Your task to perform on an android device: Open privacy settings Image 0: 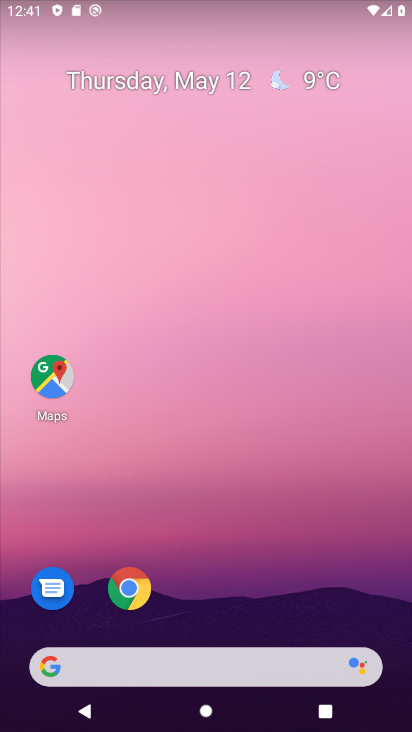
Step 0: drag from (301, 632) to (225, 0)
Your task to perform on an android device: Open privacy settings Image 1: 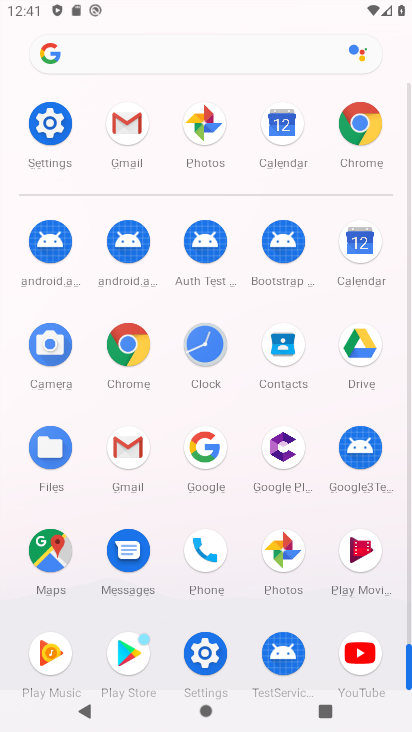
Step 1: click (51, 127)
Your task to perform on an android device: Open privacy settings Image 2: 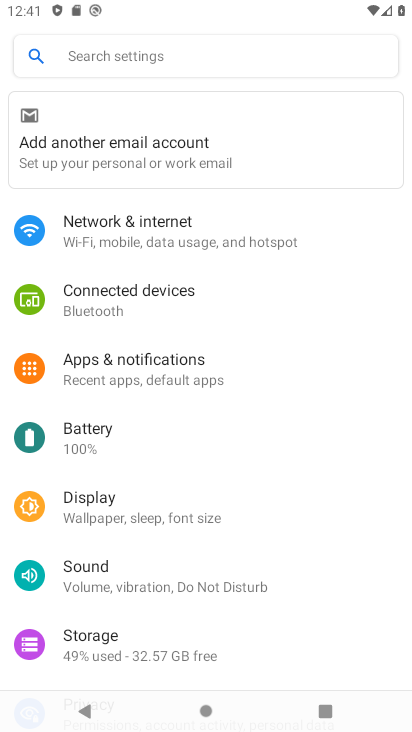
Step 2: drag from (139, 459) to (152, 21)
Your task to perform on an android device: Open privacy settings Image 3: 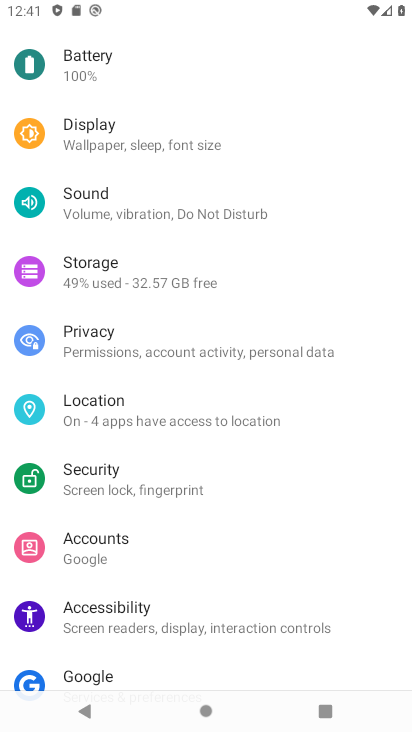
Step 3: drag from (141, 382) to (138, 80)
Your task to perform on an android device: Open privacy settings Image 4: 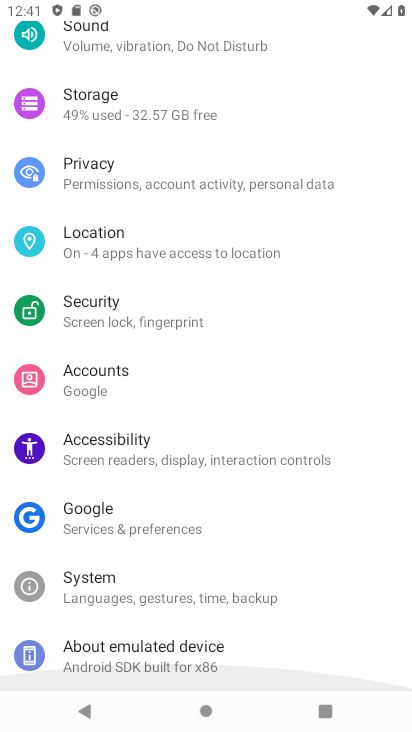
Step 4: drag from (183, 490) to (238, 89)
Your task to perform on an android device: Open privacy settings Image 5: 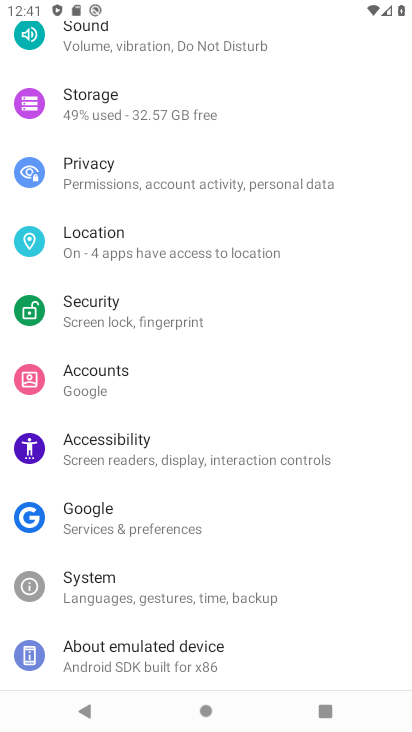
Step 5: click (69, 180)
Your task to perform on an android device: Open privacy settings Image 6: 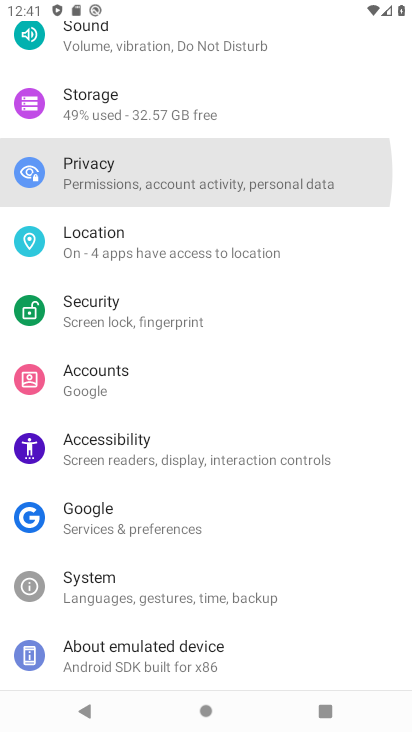
Step 6: click (79, 170)
Your task to perform on an android device: Open privacy settings Image 7: 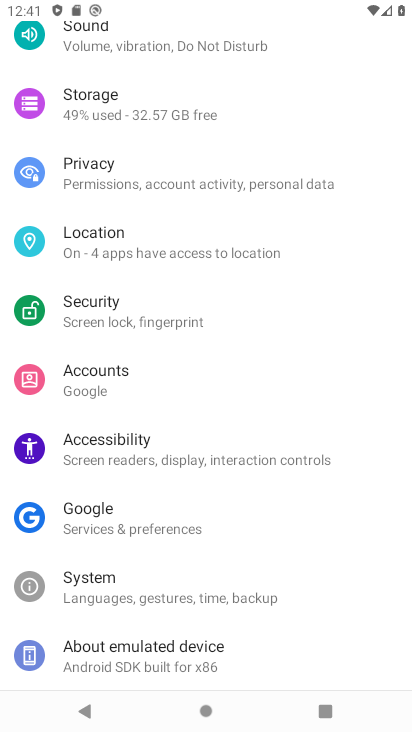
Step 7: click (82, 168)
Your task to perform on an android device: Open privacy settings Image 8: 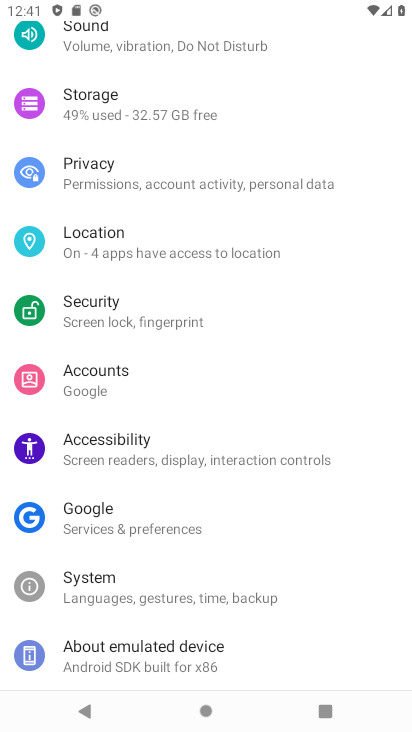
Step 8: click (82, 168)
Your task to perform on an android device: Open privacy settings Image 9: 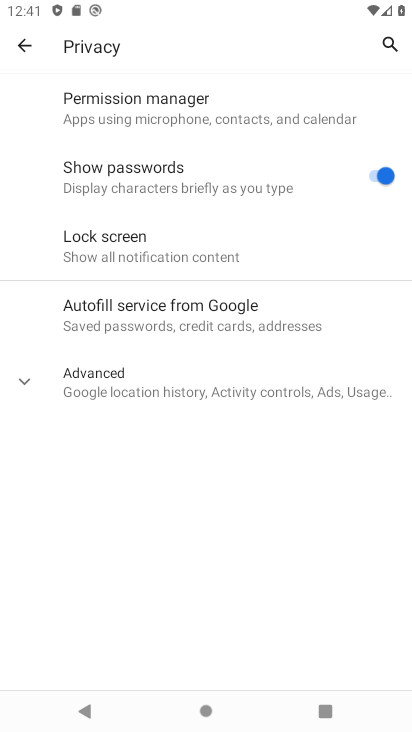
Step 9: task complete